Your task to perform on an android device: Open notification settings Image 0: 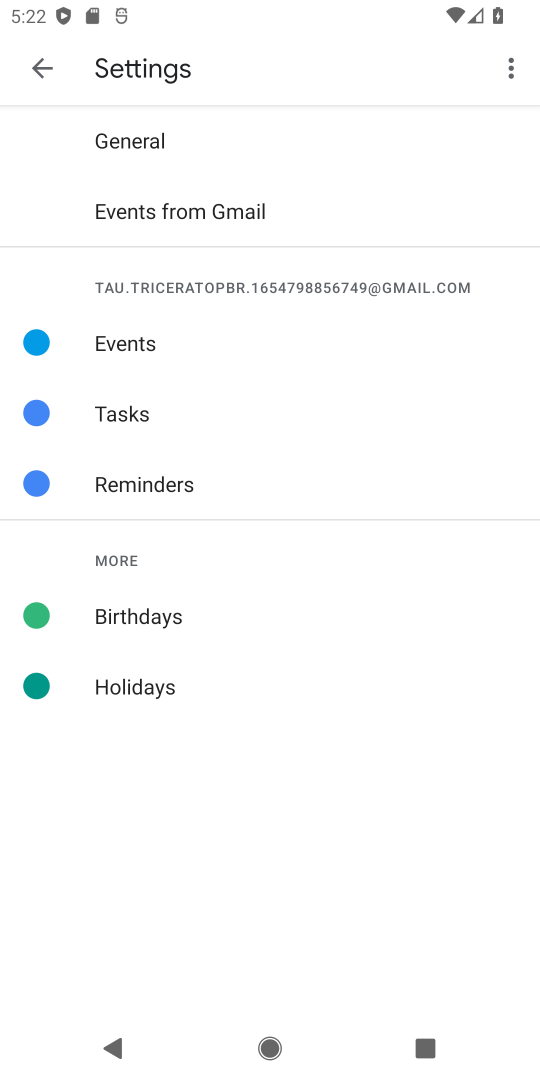
Step 0: press home button
Your task to perform on an android device: Open notification settings Image 1: 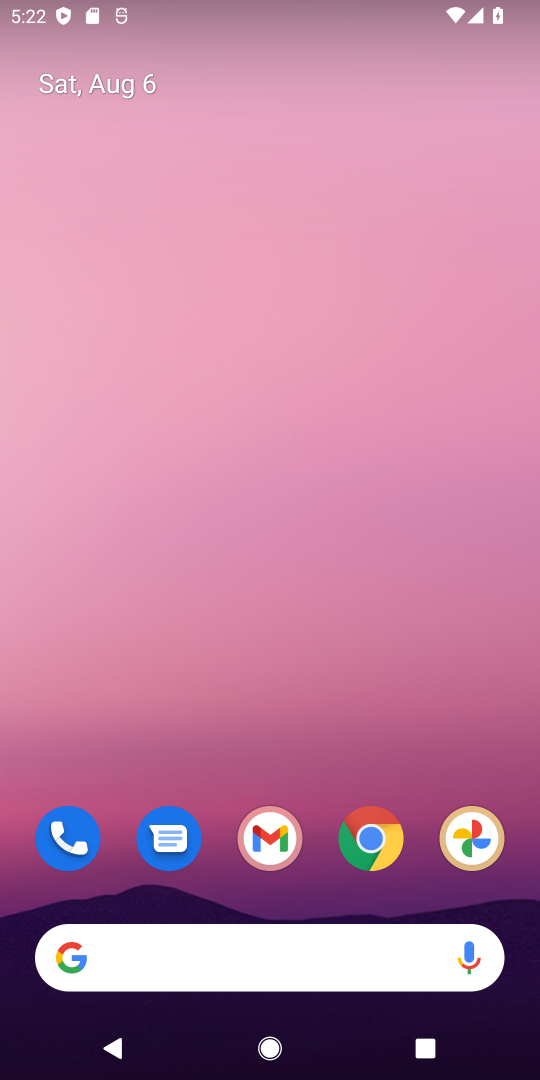
Step 1: drag from (299, 882) to (395, 2)
Your task to perform on an android device: Open notification settings Image 2: 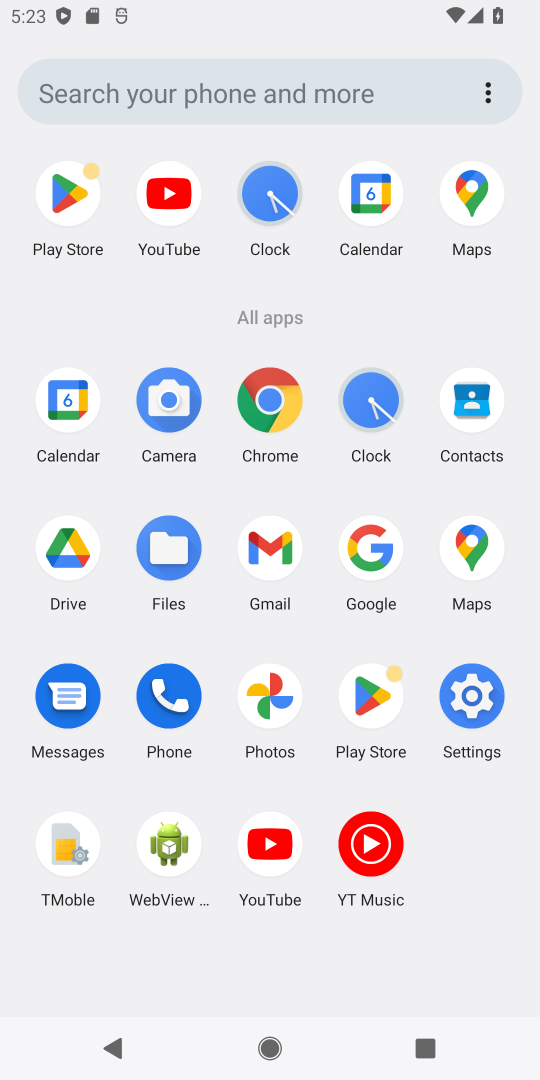
Step 2: click (483, 713)
Your task to perform on an android device: Open notification settings Image 3: 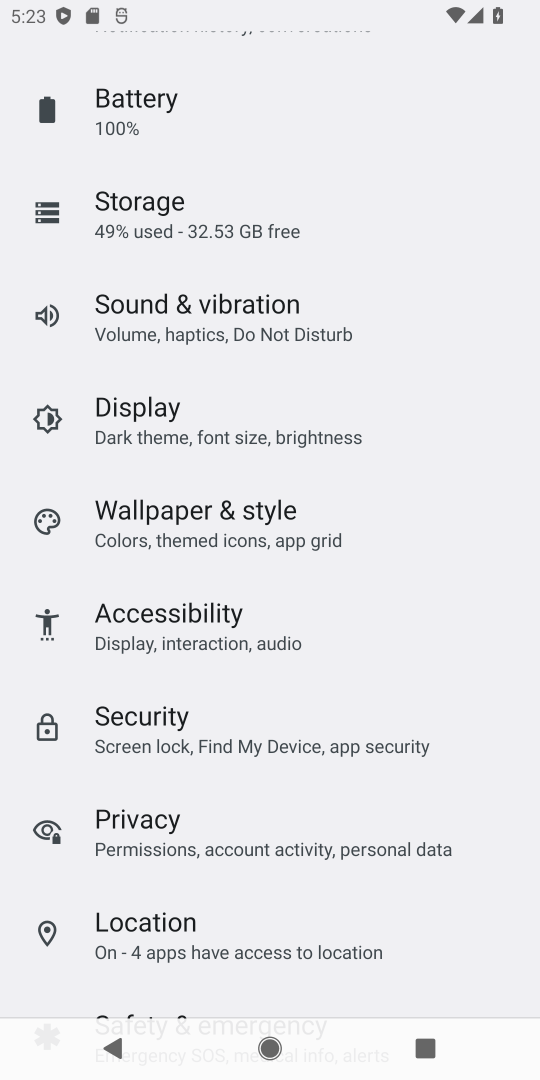
Step 3: drag from (237, 228) to (258, 803)
Your task to perform on an android device: Open notification settings Image 4: 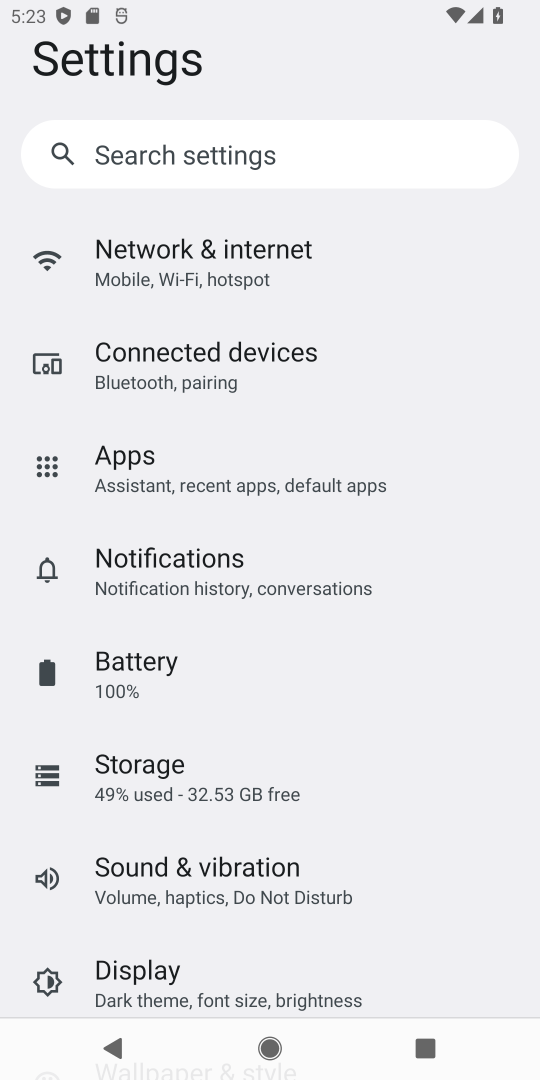
Step 4: click (204, 456)
Your task to perform on an android device: Open notification settings Image 5: 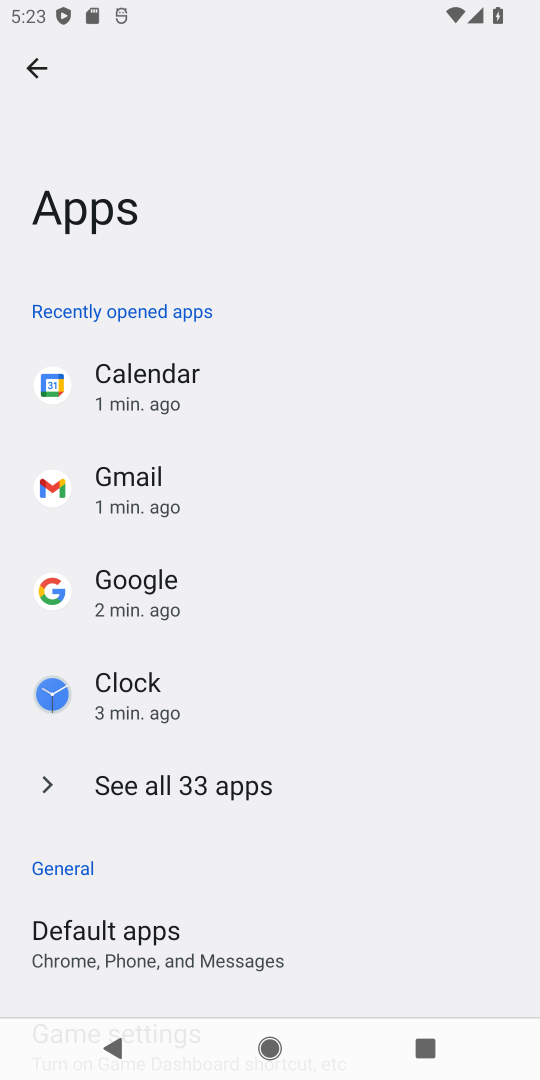
Step 5: task complete